Your task to perform on an android device: turn off data saver in the chrome app Image 0: 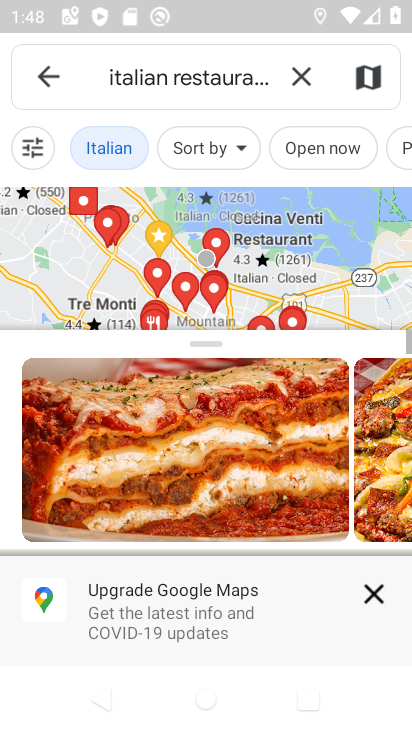
Step 0: drag from (190, 724) to (168, 220)
Your task to perform on an android device: turn off data saver in the chrome app Image 1: 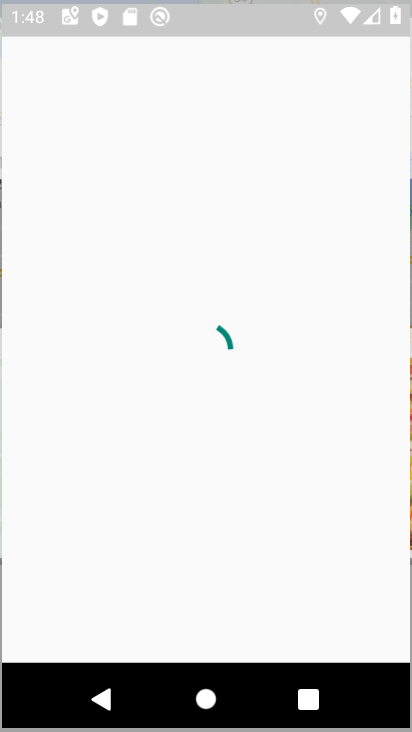
Step 1: press home button
Your task to perform on an android device: turn off data saver in the chrome app Image 2: 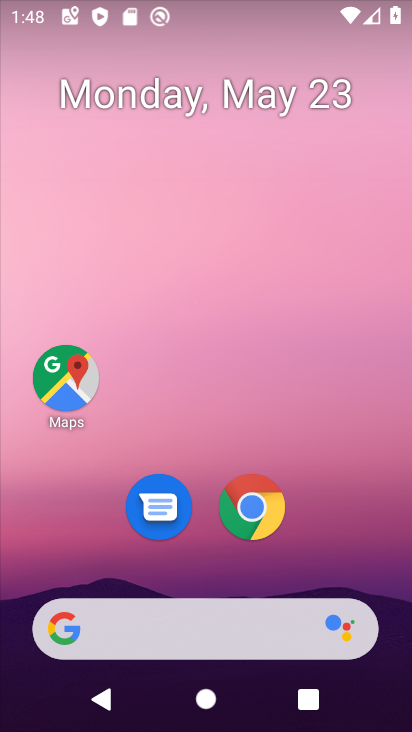
Step 2: click (243, 502)
Your task to perform on an android device: turn off data saver in the chrome app Image 3: 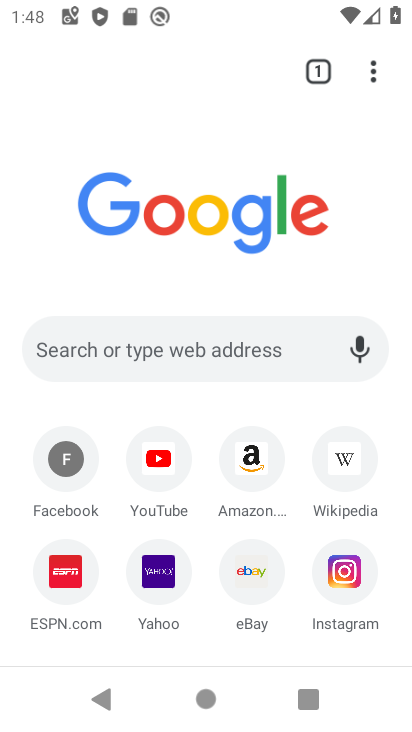
Step 3: click (375, 79)
Your task to perform on an android device: turn off data saver in the chrome app Image 4: 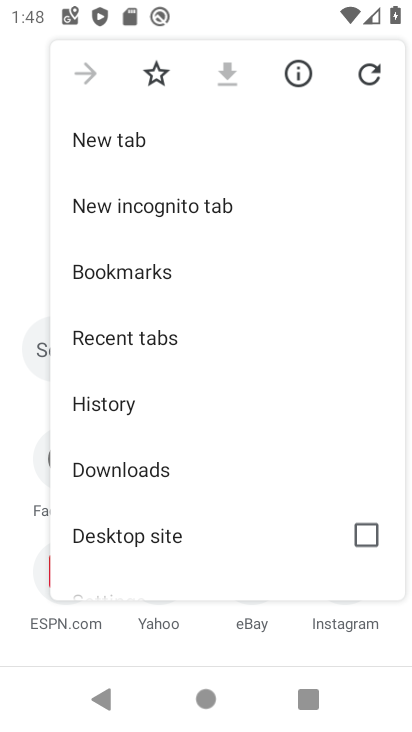
Step 4: drag from (171, 555) to (183, 141)
Your task to perform on an android device: turn off data saver in the chrome app Image 5: 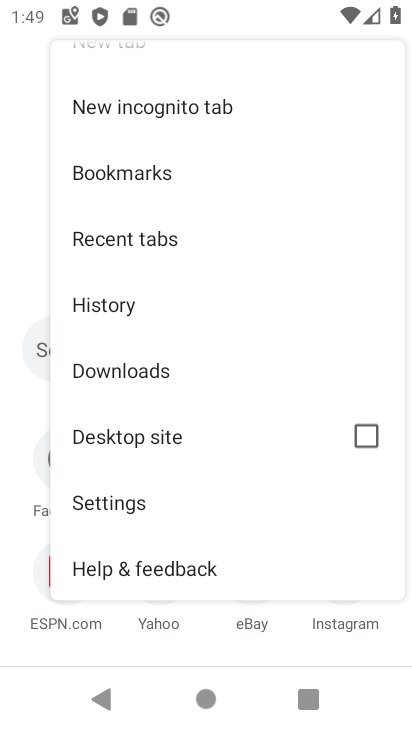
Step 5: click (136, 503)
Your task to perform on an android device: turn off data saver in the chrome app Image 6: 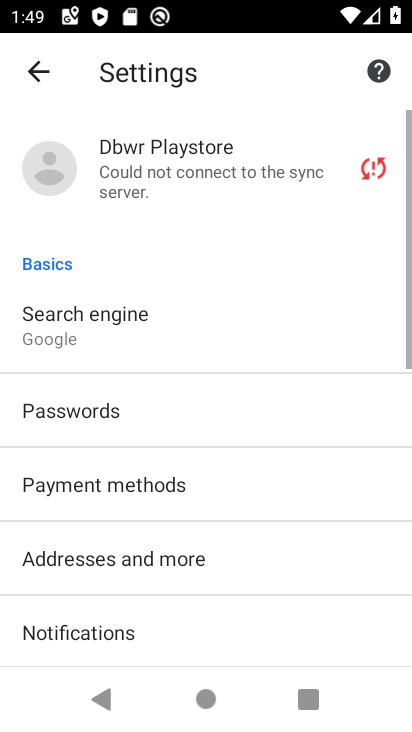
Step 6: drag from (199, 619) to (225, 182)
Your task to perform on an android device: turn off data saver in the chrome app Image 7: 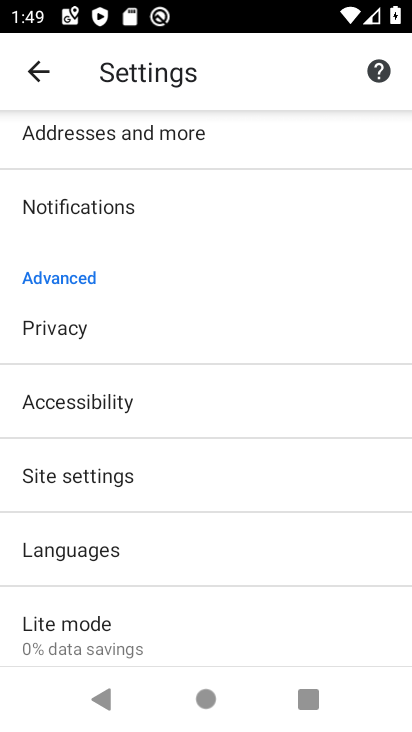
Step 7: click (83, 634)
Your task to perform on an android device: turn off data saver in the chrome app Image 8: 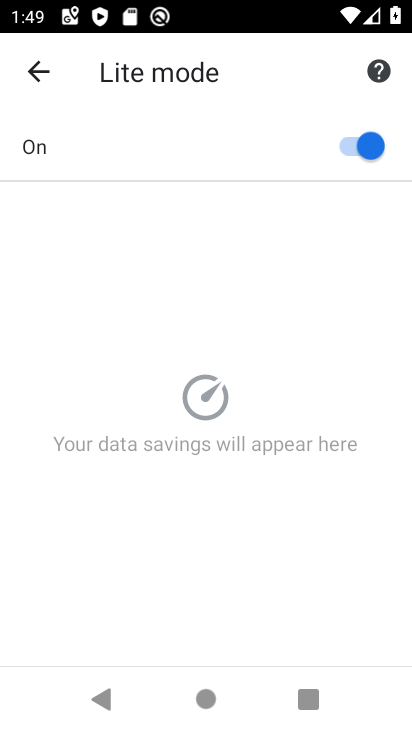
Step 8: click (350, 142)
Your task to perform on an android device: turn off data saver in the chrome app Image 9: 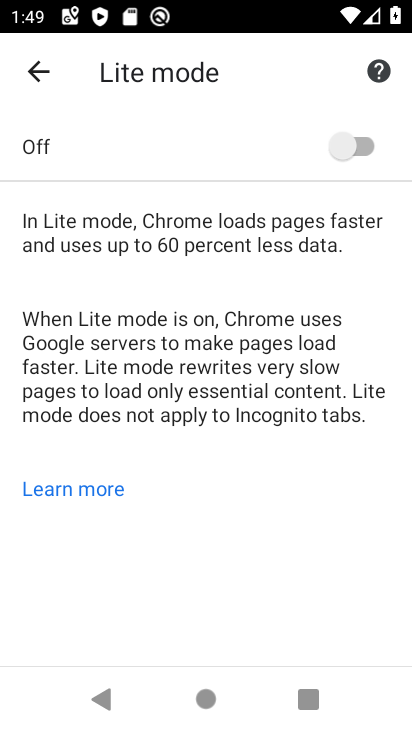
Step 9: task complete